Your task to perform on an android device: Turn off the flashlight Image 0: 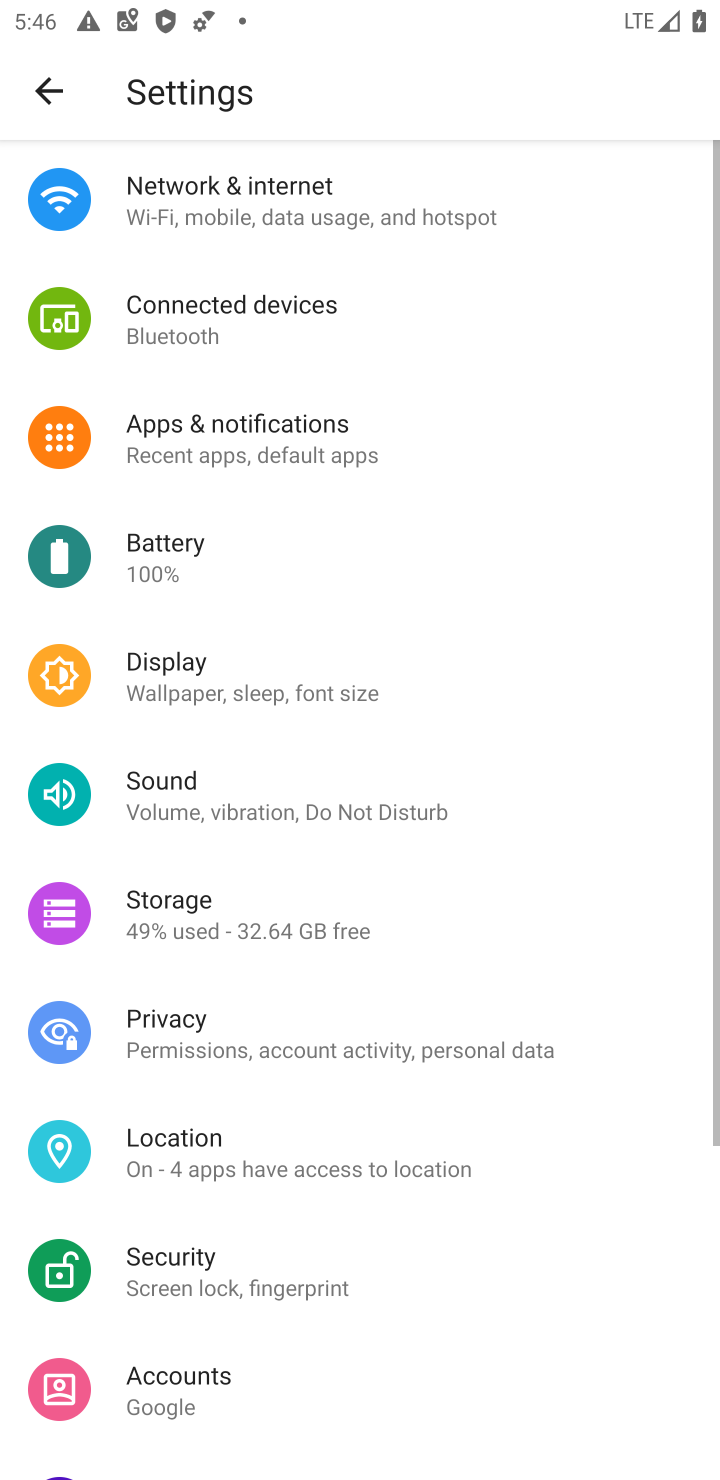
Step 0: drag from (310, 1090) to (302, 436)
Your task to perform on an android device: Turn off the flashlight Image 1: 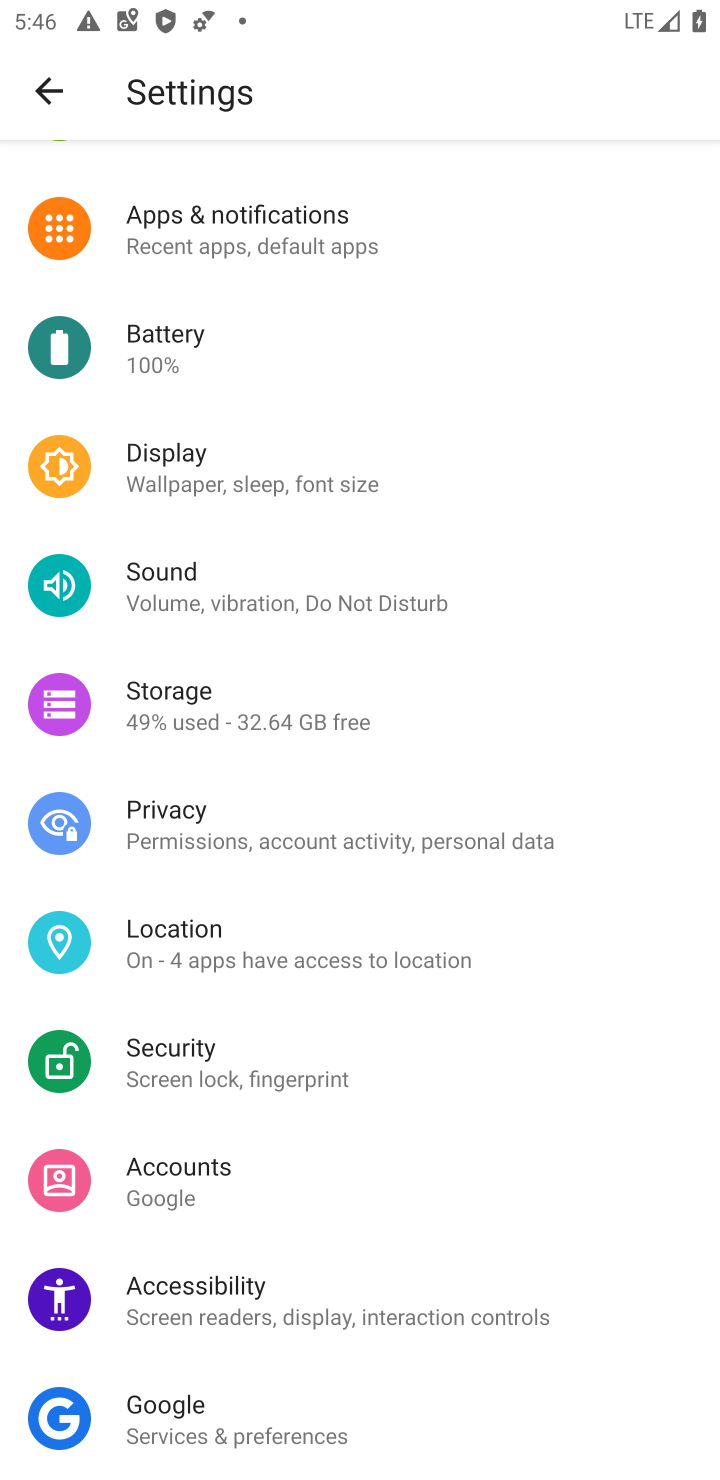
Step 1: task complete